Your task to perform on an android device: Open Google Image 0: 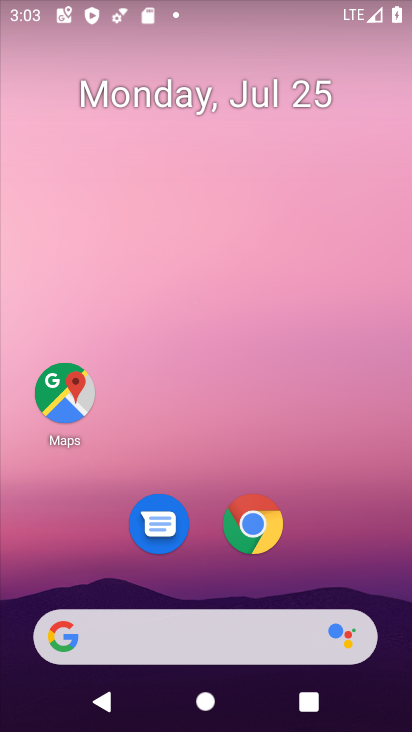
Step 0: drag from (311, 553) to (354, 30)
Your task to perform on an android device: Open Google Image 1: 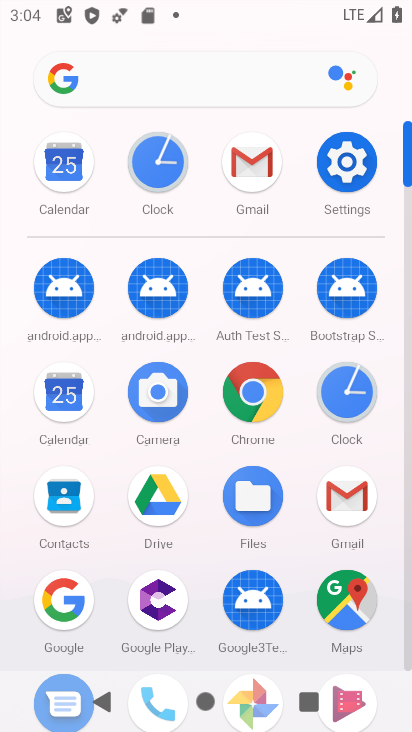
Step 1: click (70, 600)
Your task to perform on an android device: Open Google Image 2: 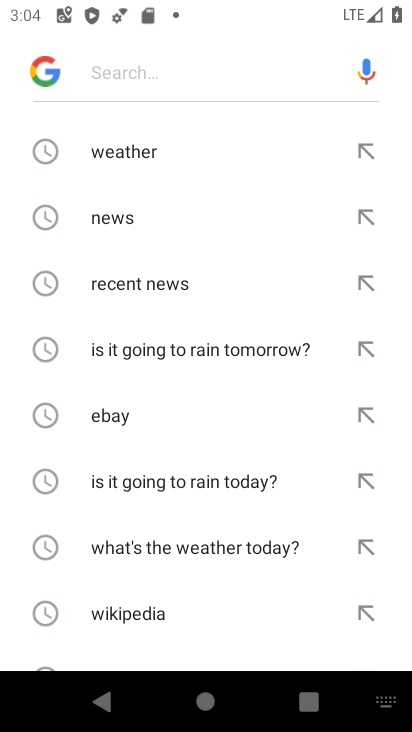
Step 2: click (41, 73)
Your task to perform on an android device: Open Google Image 3: 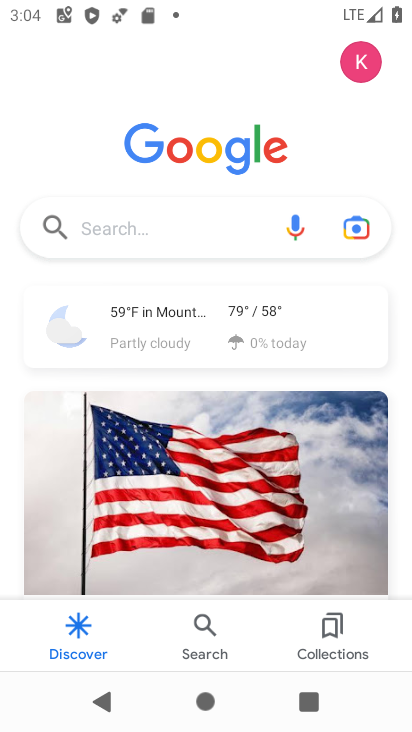
Step 3: task complete